Your task to perform on an android device: turn on translation in the chrome app Image 0: 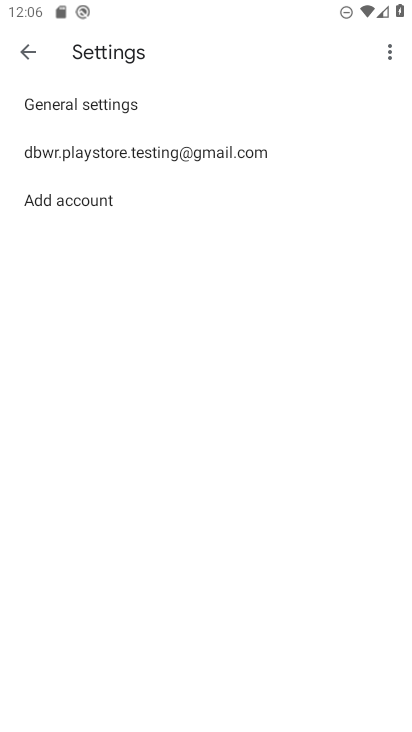
Step 0: press home button
Your task to perform on an android device: turn on translation in the chrome app Image 1: 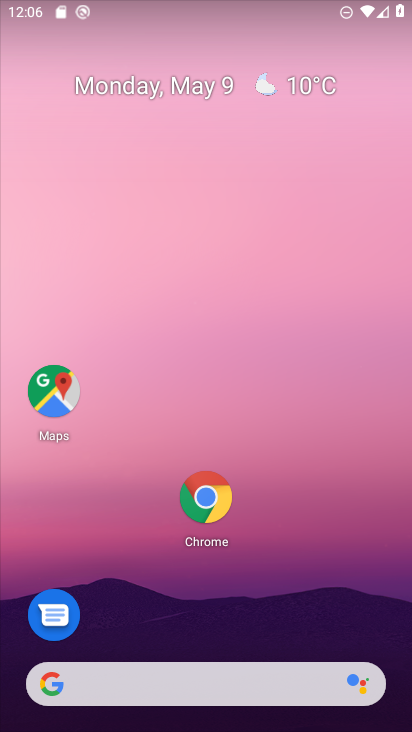
Step 1: drag from (317, 597) to (304, 146)
Your task to perform on an android device: turn on translation in the chrome app Image 2: 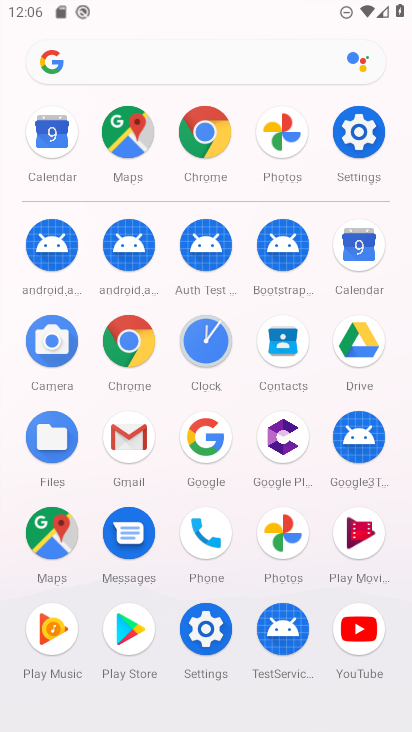
Step 2: click (135, 346)
Your task to perform on an android device: turn on translation in the chrome app Image 3: 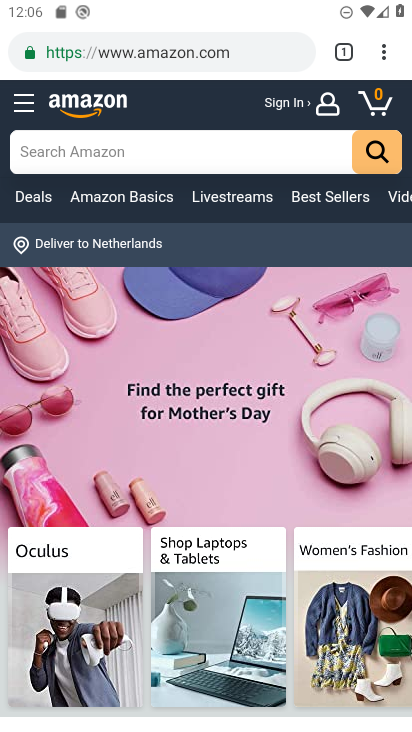
Step 3: drag from (377, 46) to (211, 633)
Your task to perform on an android device: turn on translation in the chrome app Image 4: 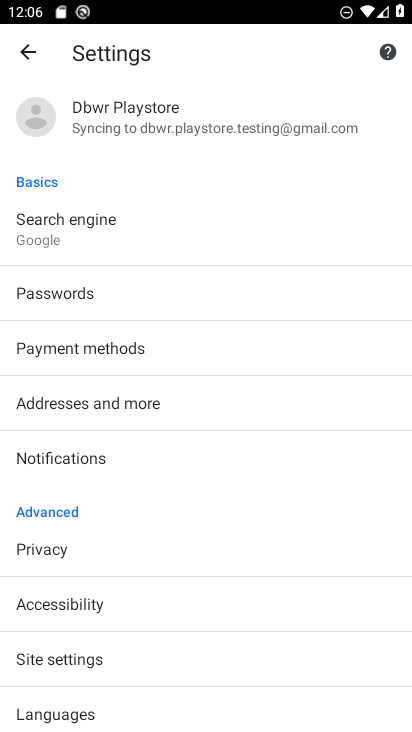
Step 4: click (114, 719)
Your task to perform on an android device: turn on translation in the chrome app Image 5: 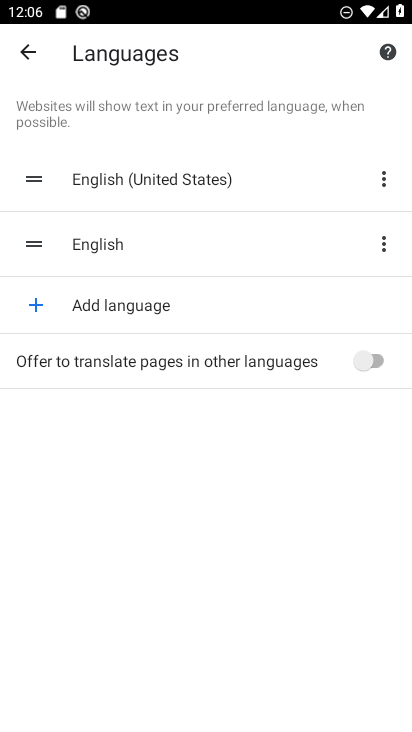
Step 5: click (382, 348)
Your task to perform on an android device: turn on translation in the chrome app Image 6: 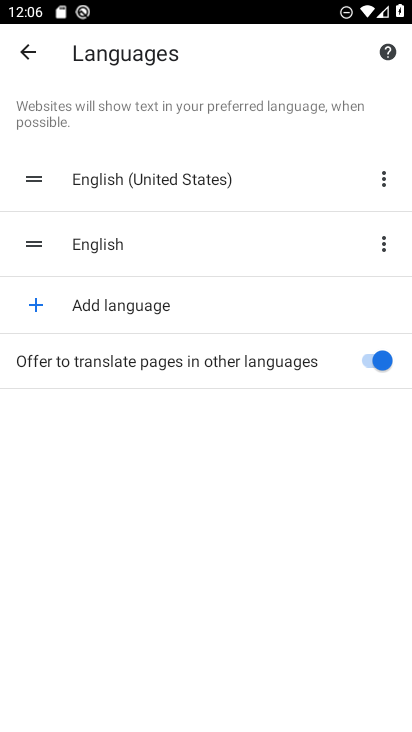
Step 6: task complete